Your task to perform on an android device: Open Google Chrome Image 0: 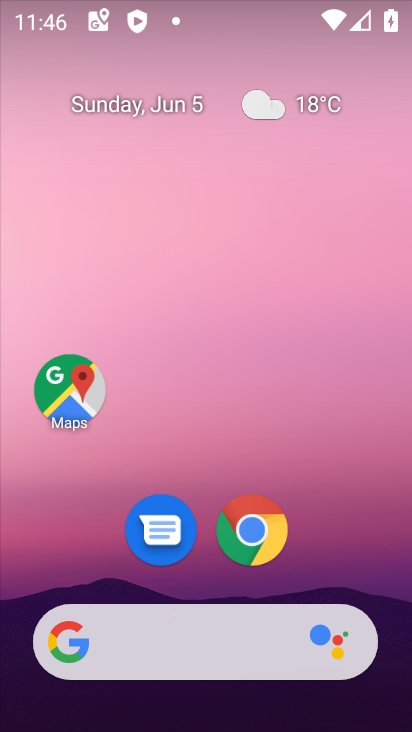
Step 0: drag from (322, 553) to (320, 1)
Your task to perform on an android device: Open Google Chrome Image 1: 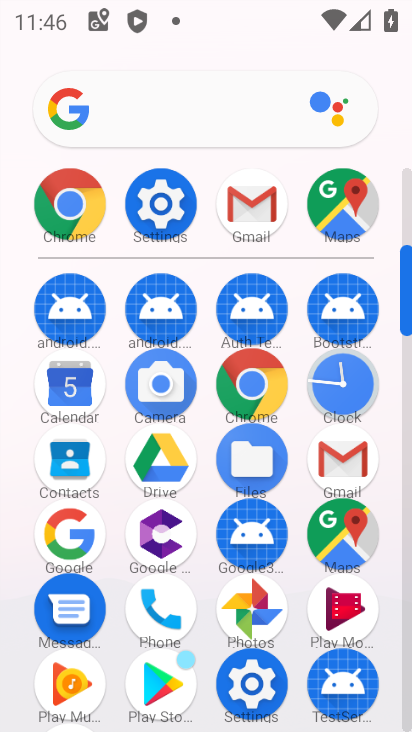
Step 1: click (76, 538)
Your task to perform on an android device: Open Google Chrome Image 2: 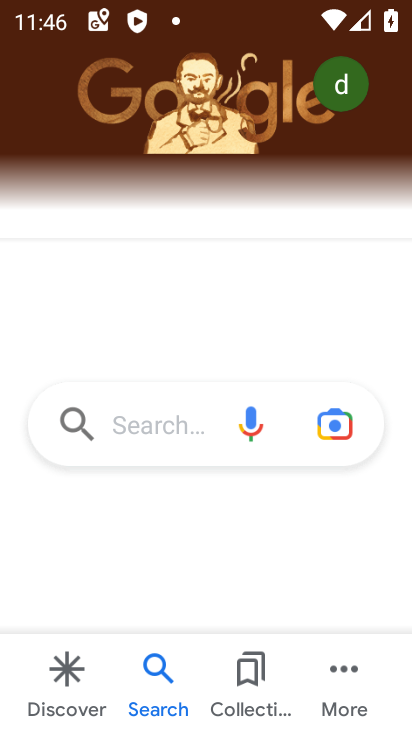
Step 2: task complete